Your task to perform on an android device: turn notification dots off Image 0: 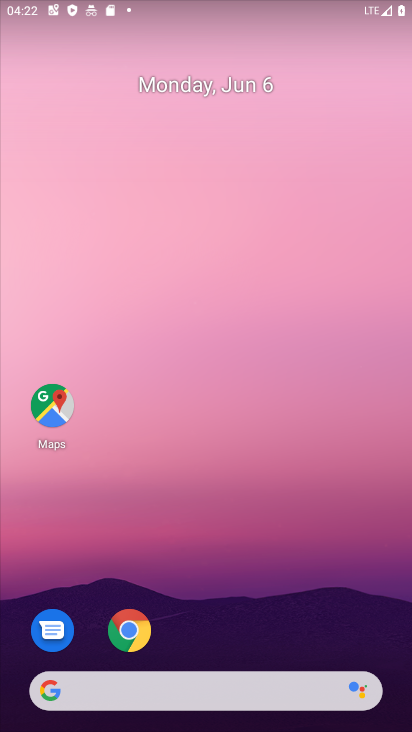
Step 0: drag from (286, 551) to (325, 5)
Your task to perform on an android device: turn notification dots off Image 1: 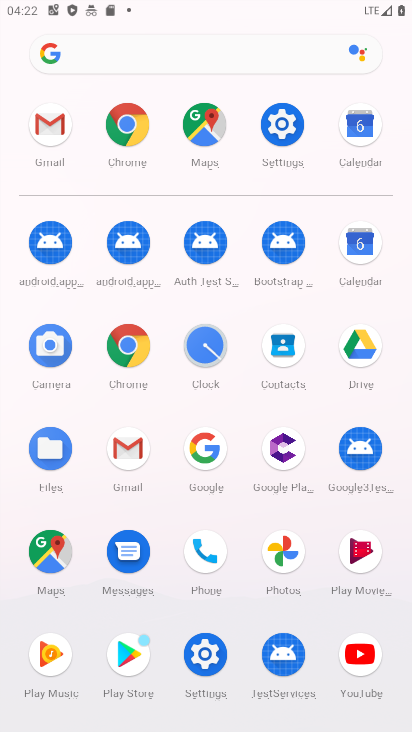
Step 1: click (284, 121)
Your task to perform on an android device: turn notification dots off Image 2: 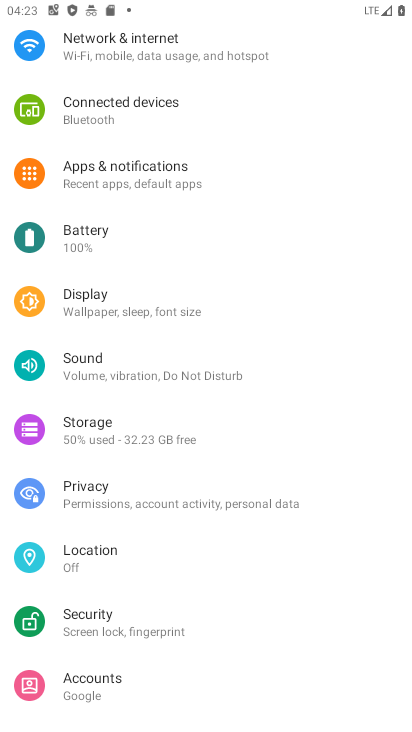
Step 2: click (110, 180)
Your task to perform on an android device: turn notification dots off Image 3: 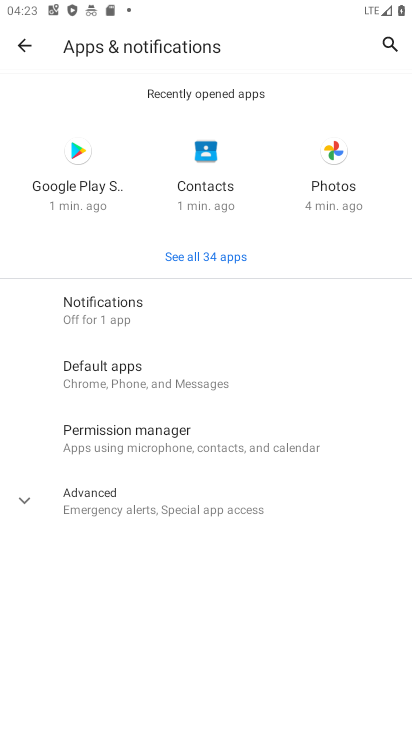
Step 3: click (130, 317)
Your task to perform on an android device: turn notification dots off Image 4: 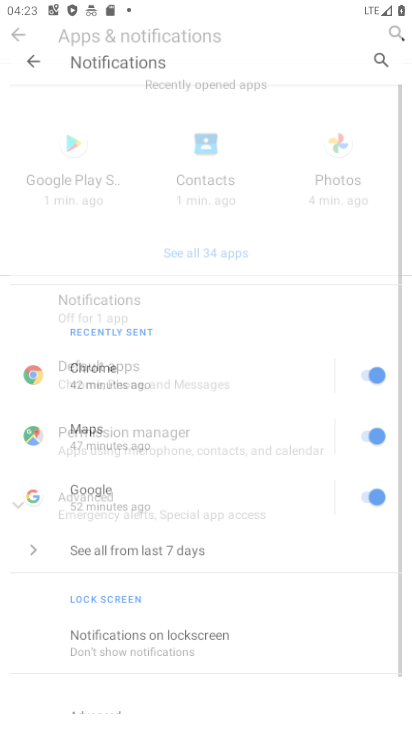
Step 4: drag from (131, 603) to (113, 228)
Your task to perform on an android device: turn notification dots off Image 5: 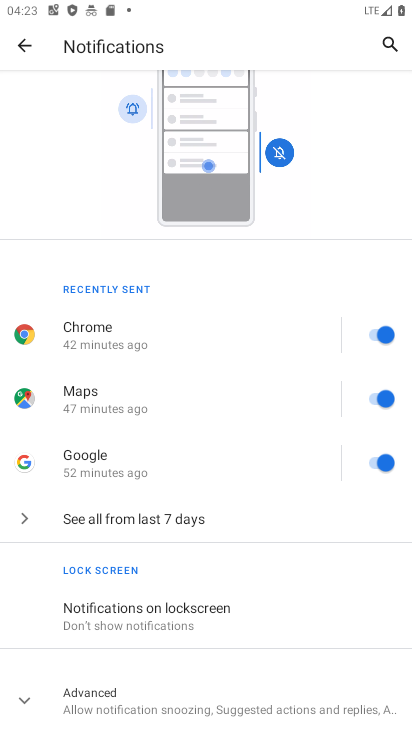
Step 5: click (107, 721)
Your task to perform on an android device: turn notification dots off Image 6: 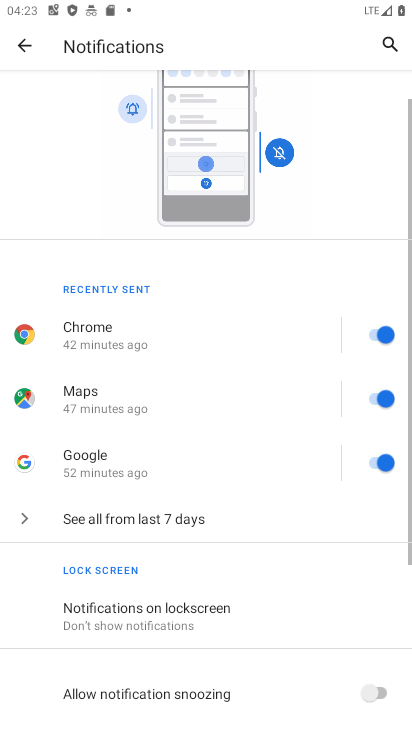
Step 6: drag from (179, 719) to (178, 327)
Your task to perform on an android device: turn notification dots off Image 7: 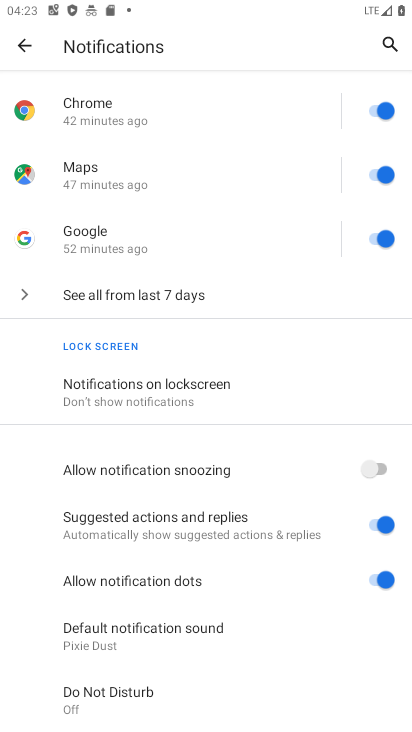
Step 7: click (245, 581)
Your task to perform on an android device: turn notification dots off Image 8: 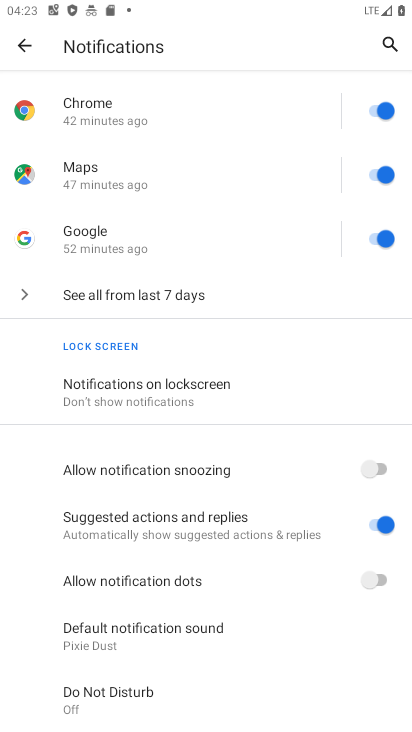
Step 8: task complete